Your task to perform on an android device: open chrome and create a bookmark for the current page Image 0: 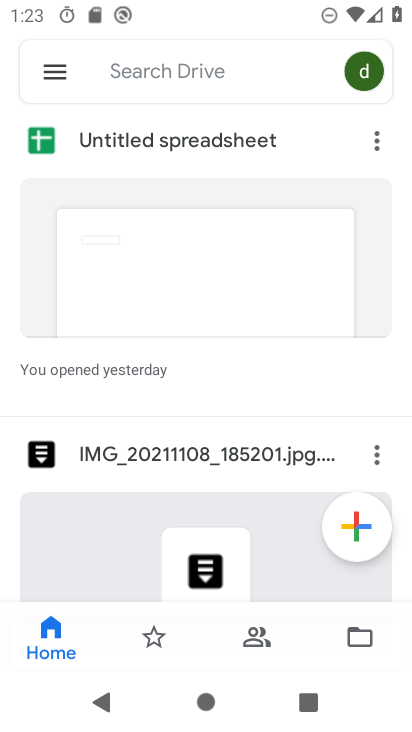
Step 0: press home button
Your task to perform on an android device: open chrome and create a bookmark for the current page Image 1: 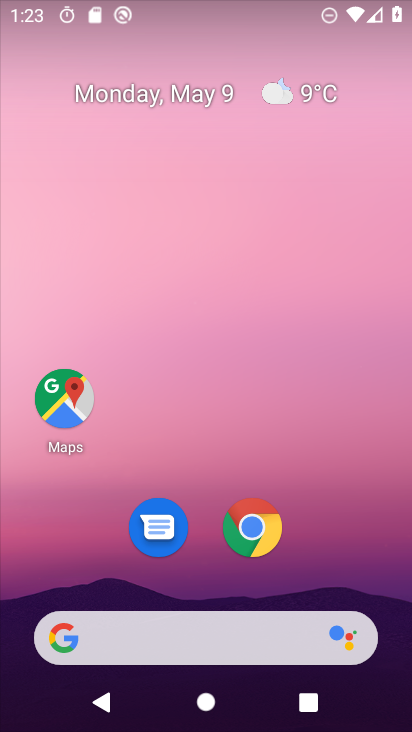
Step 1: click (254, 521)
Your task to perform on an android device: open chrome and create a bookmark for the current page Image 2: 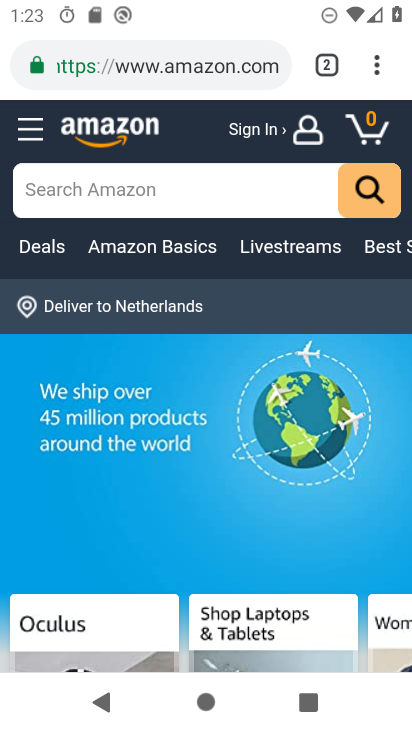
Step 2: task complete